Your task to perform on an android device: toggle improve location accuracy Image 0: 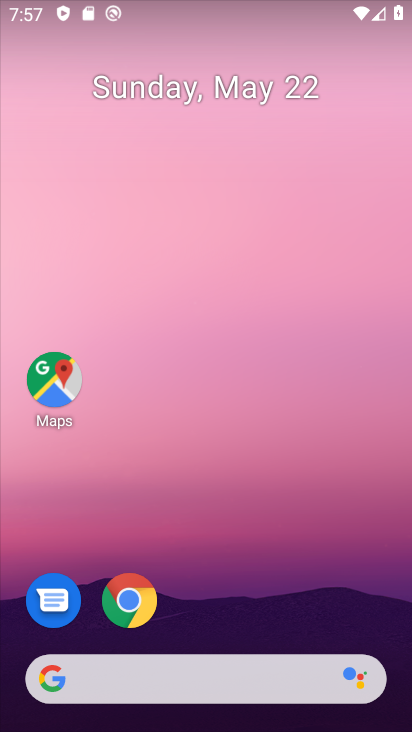
Step 0: drag from (240, 650) to (239, 292)
Your task to perform on an android device: toggle improve location accuracy Image 1: 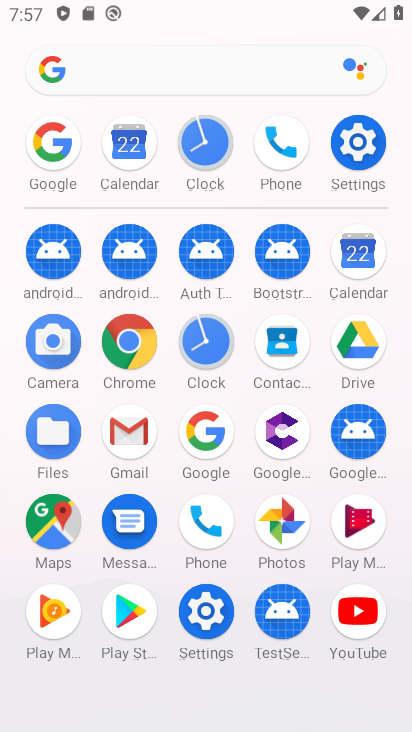
Step 1: click (348, 154)
Your task to perform on an android device: toggle improve location accuracy Image 2: 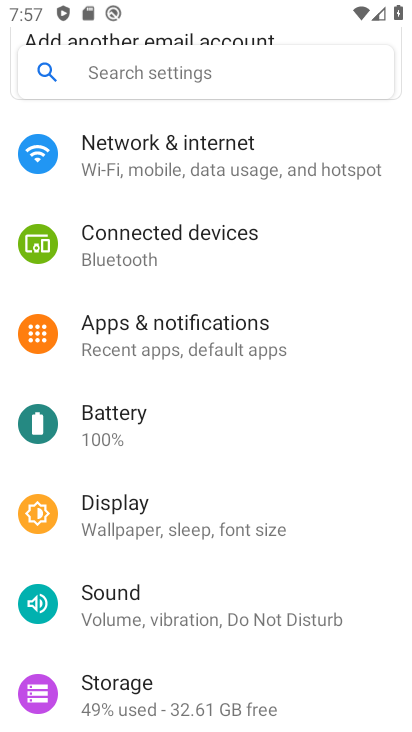
Step 2: drag from (151, 667) to (179, 281)
Your task to perform on an android device: toggle improve location accuracy Image 3: 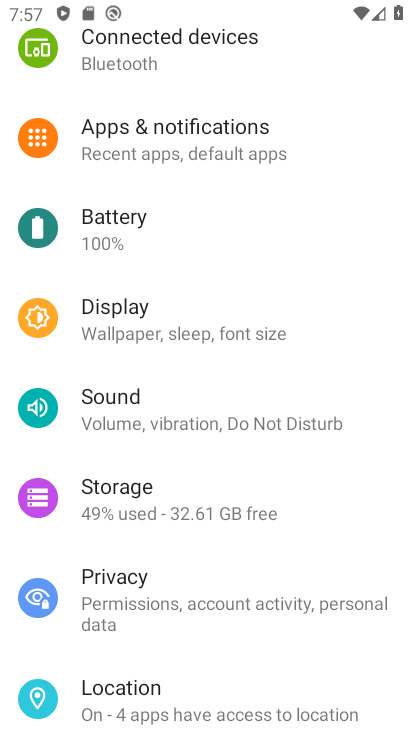
Step 3: click (175, 699)
Your task to perform on an android device: toggle improve location accuracy Image 4: 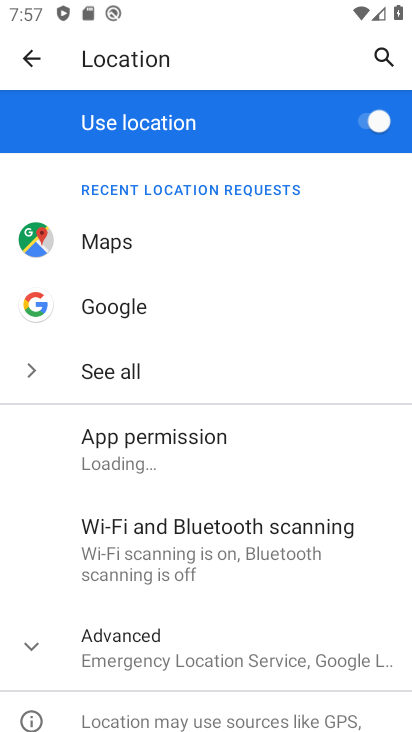
Step 4: click (164, 655)
Your task to perform on an android device: toggle improve location accuracy Image 5: 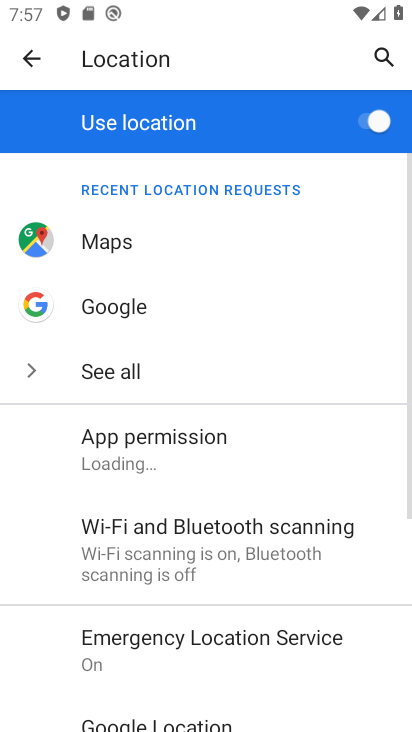
Step 5: drag from (152, 704) to (171, 340)
Your task to perform on an android device: toggle improve location accuracy Image 6: 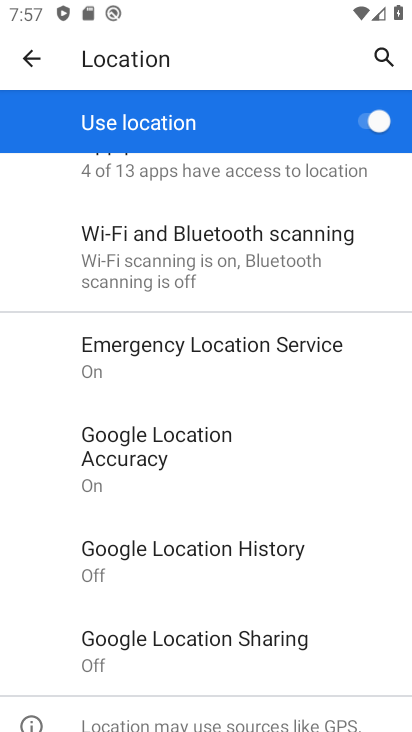
Step 6: drag from (194, 668) to (220, 346)
Your task to perform on an android device: toggle improve location accuracy Image 7: 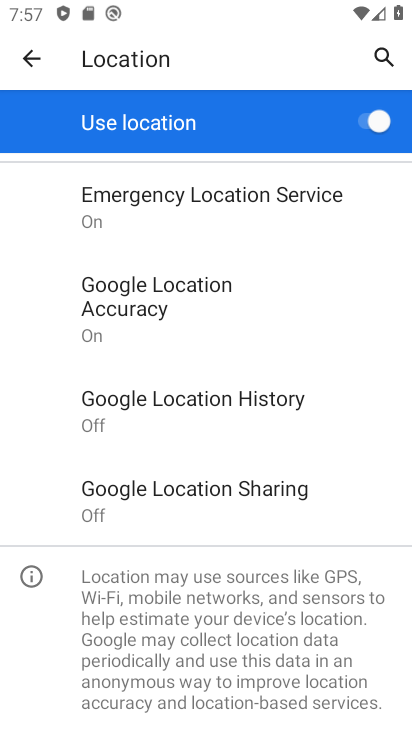
Step 7: click (172, 314)
Your task to perform on an android device: toggle improve location accuracy Image 8: 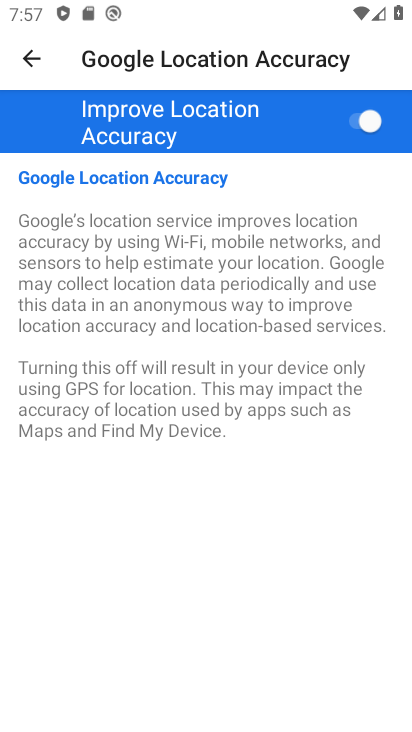
Step 8: click (364, 115)
Your task to perform on an android device: toggle improve location accuracy Image 9: 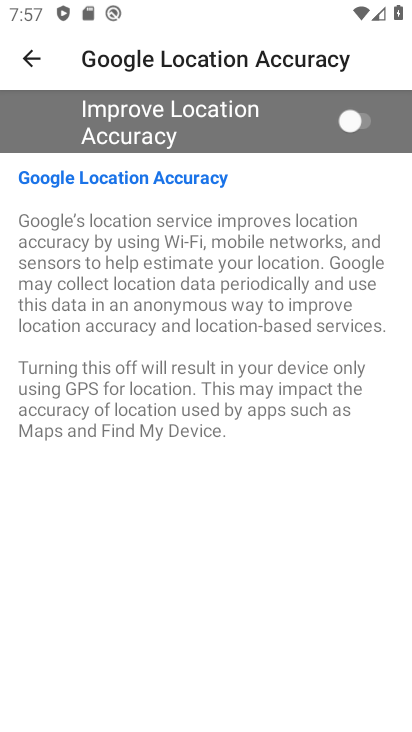
Step 9: task complete